Your task to perform on an android device: see creations saved in the google photos Image 0: 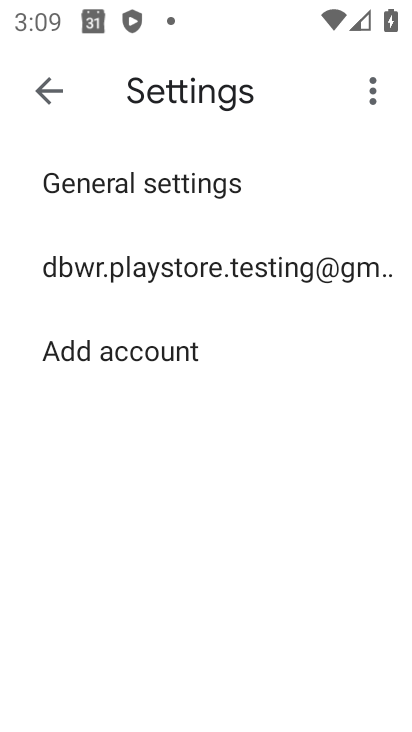
Step 0: press home button
Your task to perform on an android device: see creations saved in the google photos Image 1: 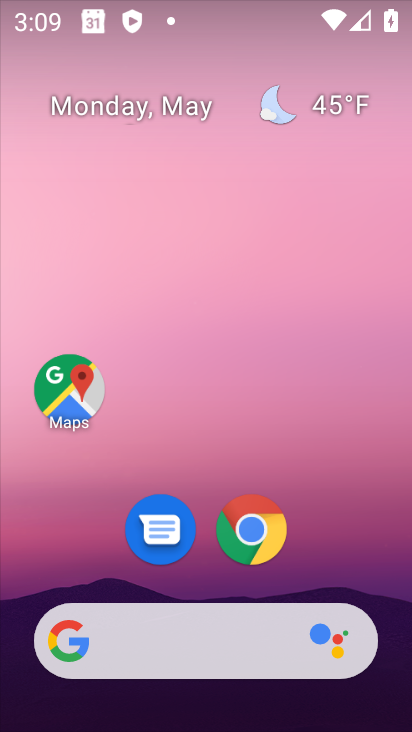
Step 1: drag from (355, 547) to (318, 122)
Your task to perform on an android device: see creations saved in the google photos Image 2: 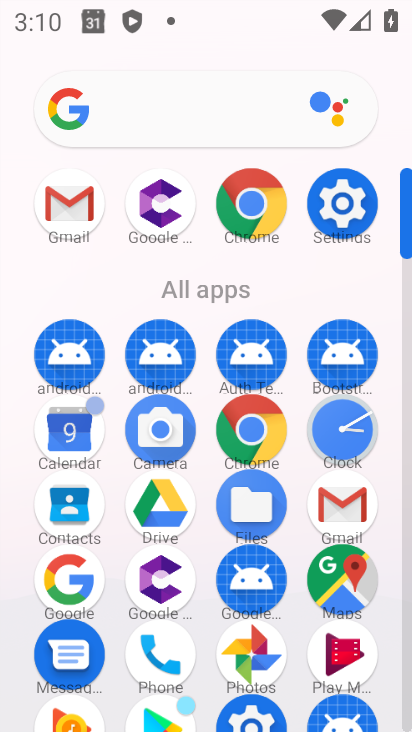
Step 2: click (264, 641)
Your task to perform on an android device: see creations saved in the google photos Image 3: 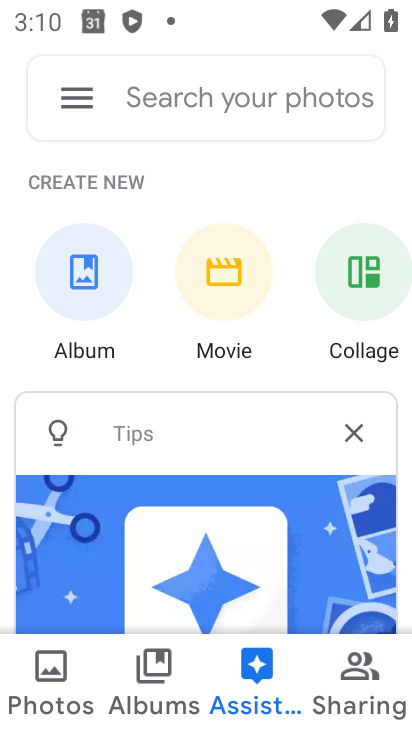
Step 3: click (169, 116)
Your task to perform on an android device: see creations saved in the google photos Image 4: 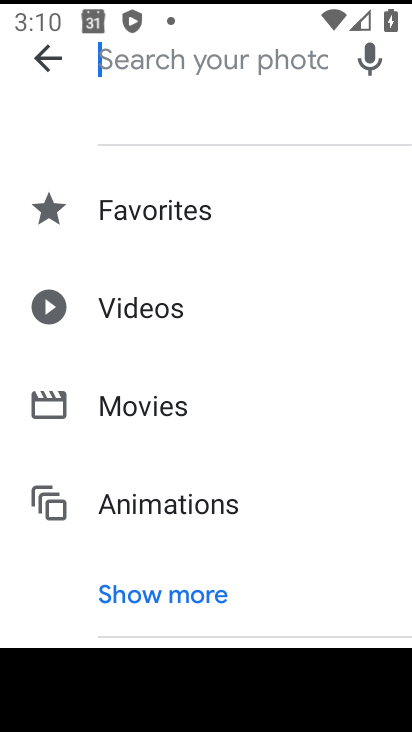
Step 4: click (174, 595)
Your task to perform on an android device: see creations saved in the google photos Image 5: 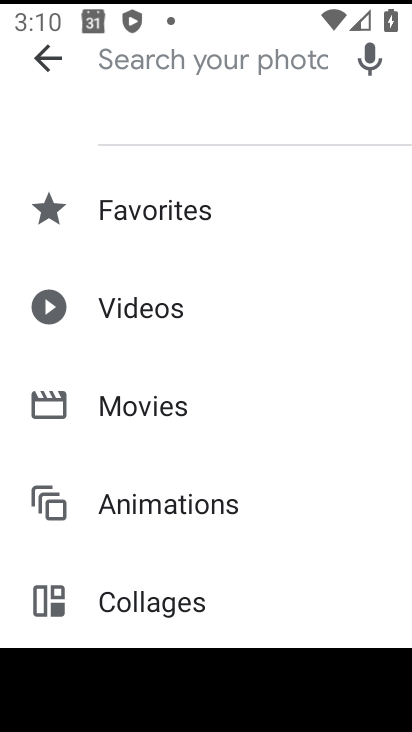
Step 5: drag from (243, 610) to (217, 231)
Your task to perform on an android device: see creations saved in the google photos Image 6: 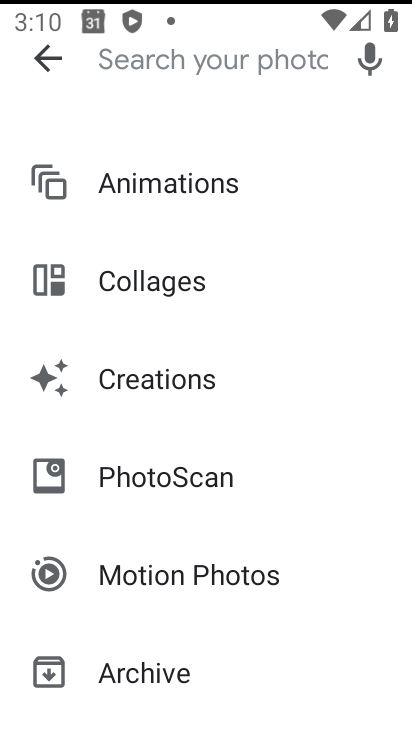
Step 6: click (234, 380)
Your task to perform on an android device: see creations saved in the google photos Image 7: 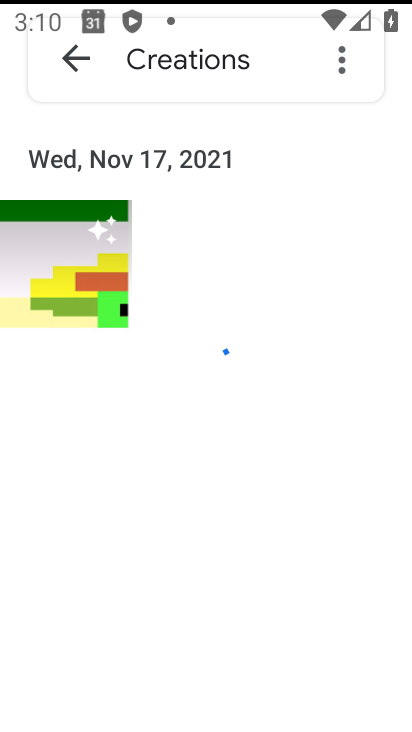
Step 7: task complete